Your task to perform on an android device: star an email in the gmail app Image 0: 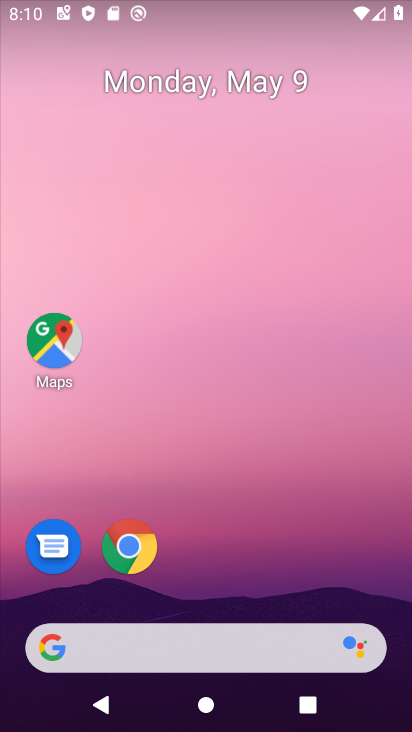
Step 0: drag from (263, 706) to (339, 159)
Your task to perform on an android device: star an email in the gmail app Image 1: 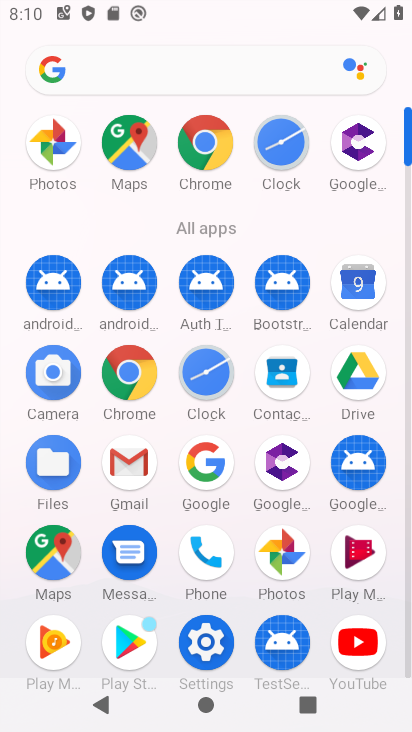
Step 1: click (135, 456)
Your task to perform on an android device: star an email in the gmail app Image 2: 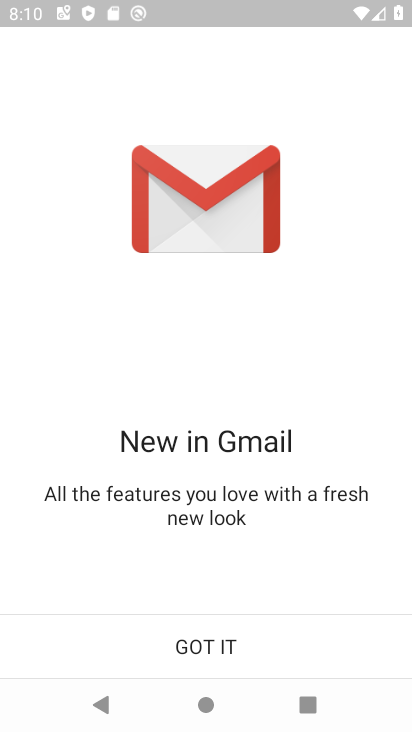
Step 2: click (224, 639)
Your task to perform on an android device: star an email in the gmail app Image 3: 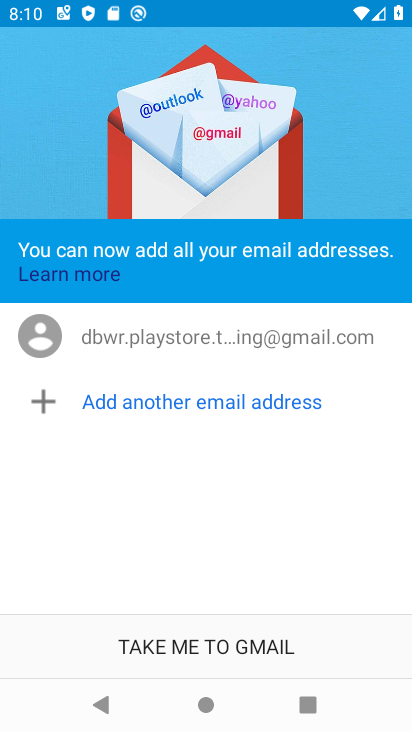
Step 3: click (224, 639)
Your task to perform on an android device: star an email in the gmail app Image 4: 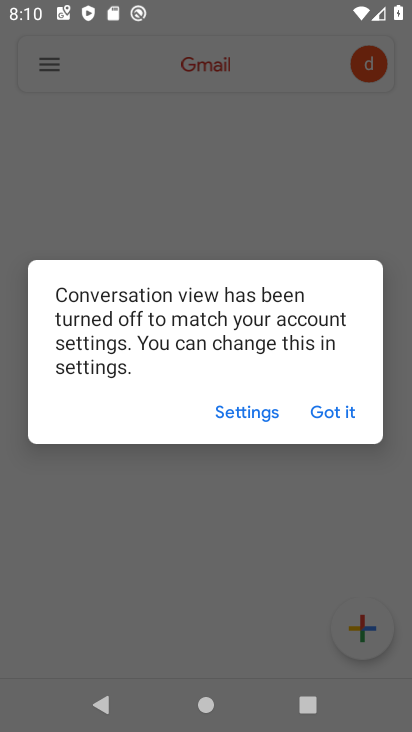
Step 4: click (323, 411)
Your task to perform on an android device: star an email in the gmail app Image 5: 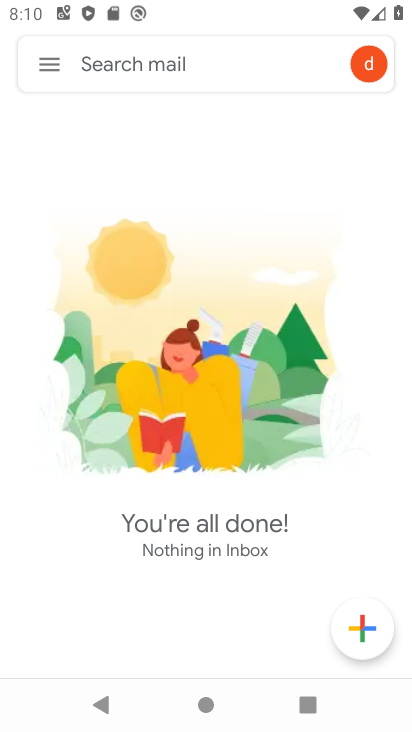
Step 5: task complete